Your task to perform on an android device: delete a single message in the gmail app Image 0: 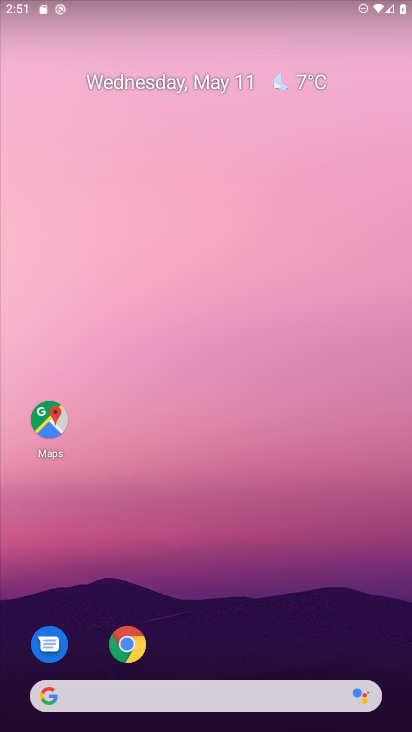
Step 0: drag from (182, 620) to (229, 144)
Your task to perform on an android device: delete a single message in the gmail app Image 1: 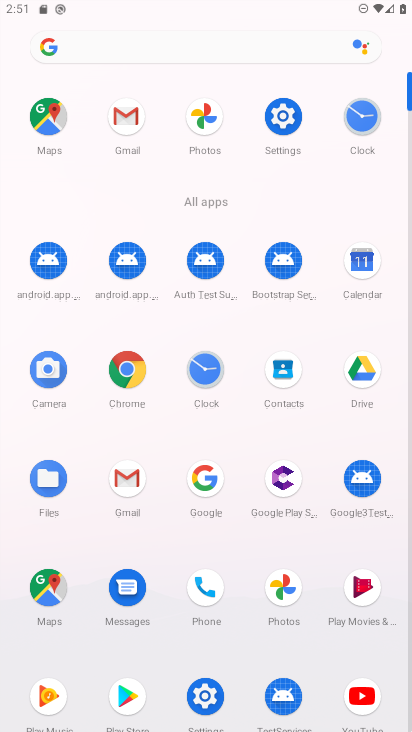
Step 1: click (127, 122)
Your task to perform on an android device: delete a single message in the gmail app Image 2: 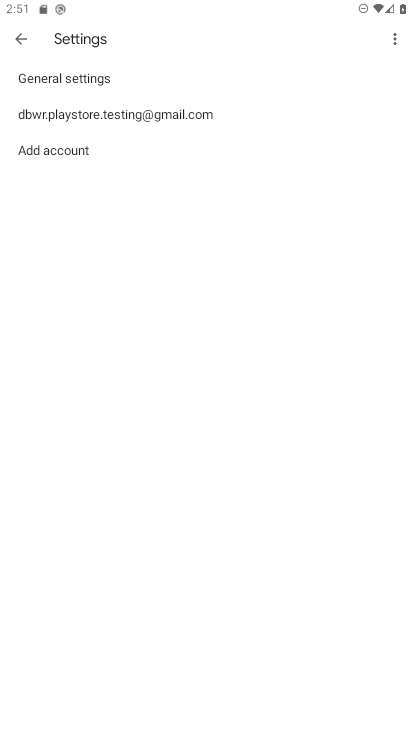
Step 2: click (21, 33)
Your task to perform on an android device: delete a single message in the gmail app Image 3: 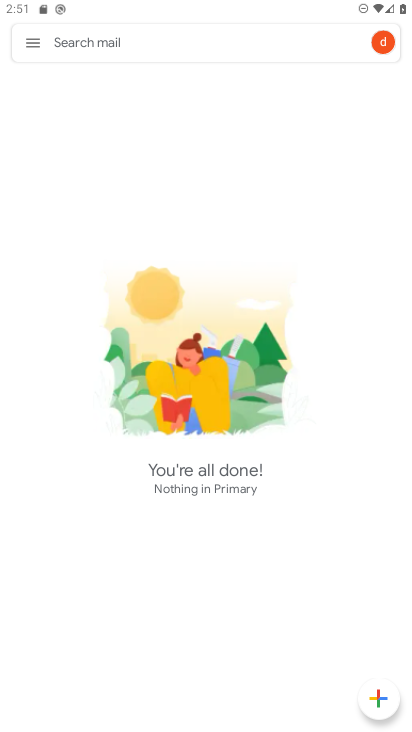
Step 3: task complete